Your task to perform on an android device: Show me the alarms in the clock app Image 0: 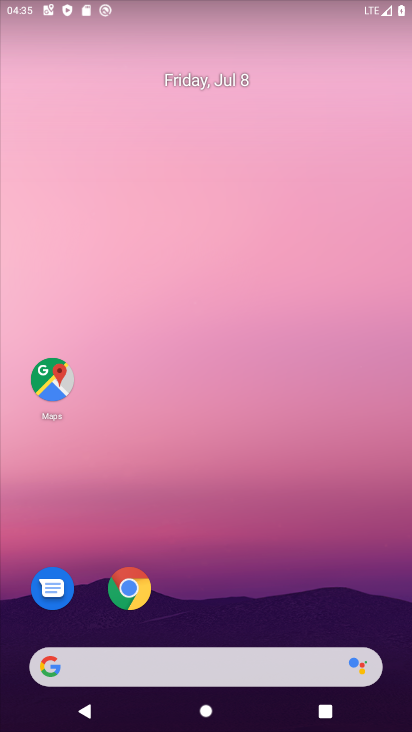
Step 0: drag from (188, 561) to (224, 15)
Your task to perform on an android device: Show me the alarms in the clock app Image 1: 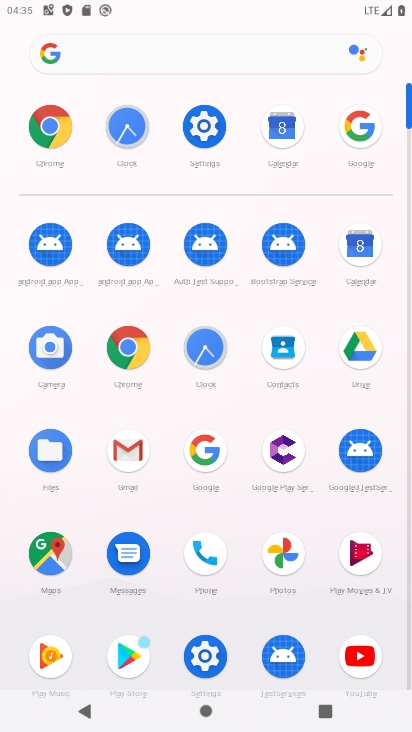
Step 1: click (120, 138)
Your task to perform on an android device: Show me the alarms in the clock app Image 2: 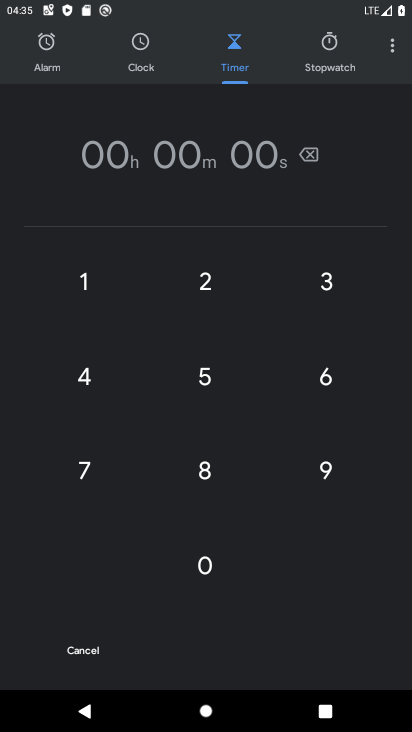
Step 2: click (50, 69)
Your task to perform on an android device: Show me the alarms in the clock app Image 3: 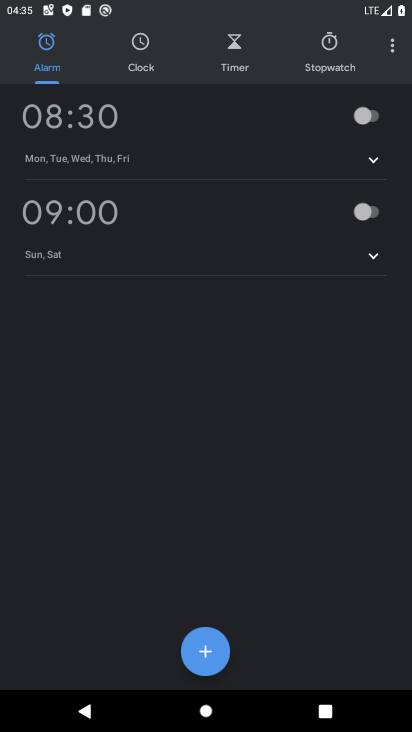
Step 3: task complete